Your task to perform on an android device: refresh tabs in the chrome app Image 0: 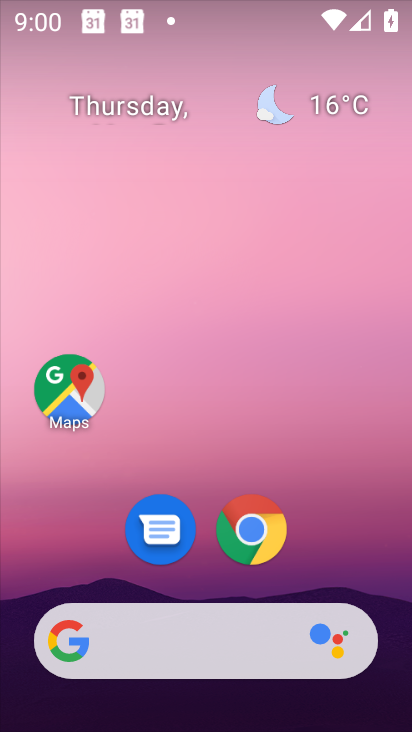
Step 0: click (260, 533)
Your task to perform on an android device: refresh tabs in the chrome app Image 1: 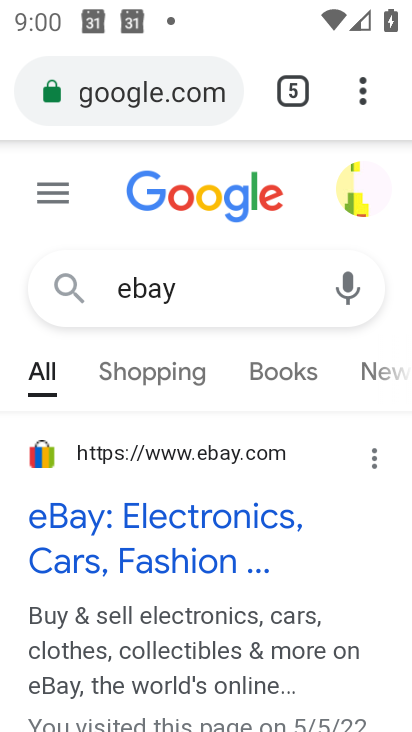
Step 1: click (364, 85)
Your task to perform on an android device: refresh tabs in the chrome app Image 2: 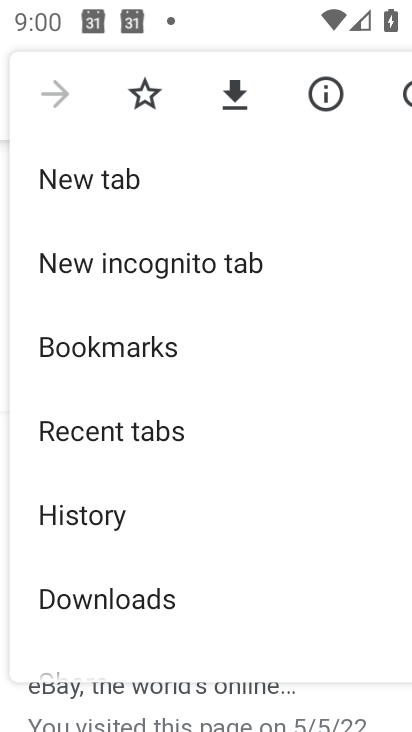
Step 2: click (403, 96)
Your task to perform on an android device: refresh tabs in the chrome app Image 3: 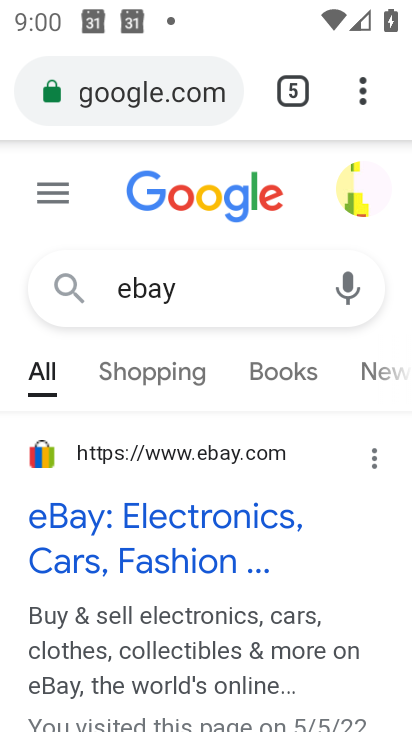
Step 3: task complete